Your task to perform on an android device: turn on sleep mode Image 0: 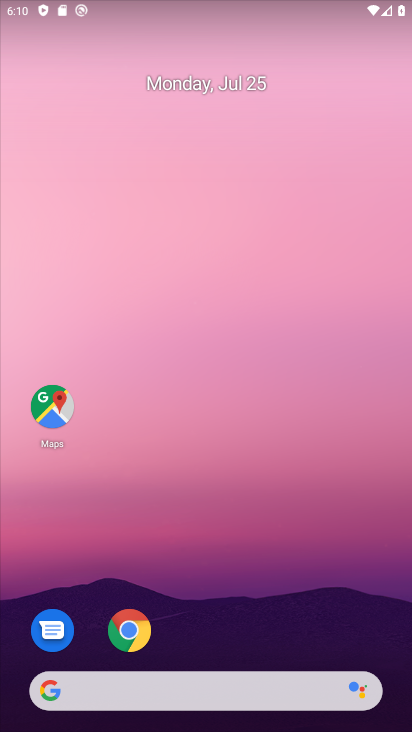
Step 0: drag from (184, 699) to (270, 79)
Your task to perform on an android device: turn on sleep mode Image 1: 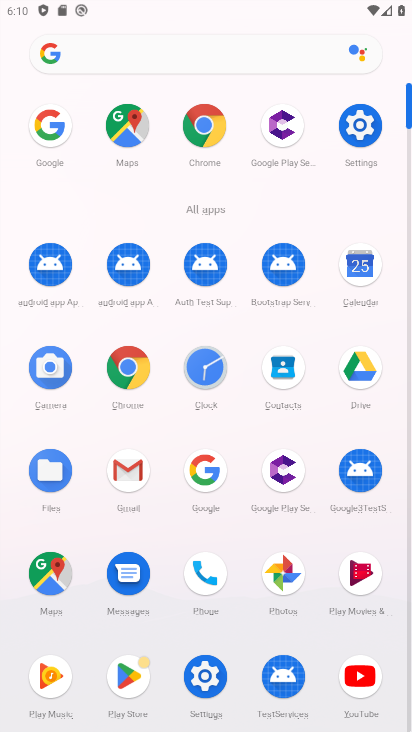
Step 1: click (359, 125)
Your task to perform on an android device: turn on sleep mode Image 2: 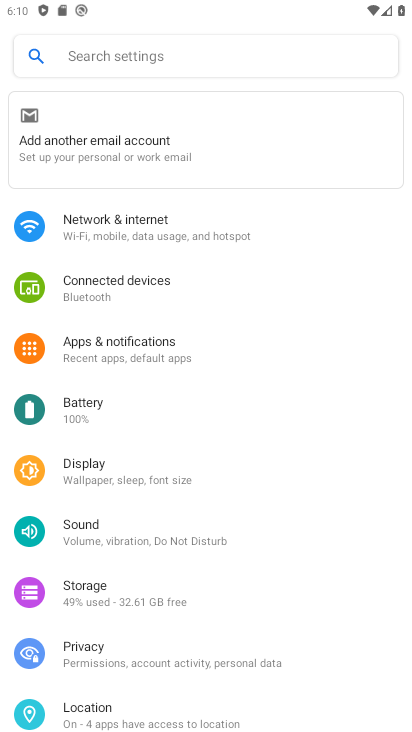
Step 2: click (118, 361)
Your task to perform on an android device: turn on sleep mode Image 3: 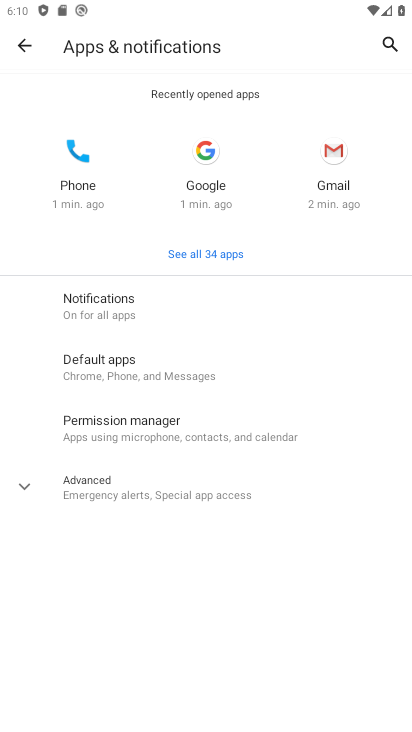
Step 3: press back button
Your task to perform on an android device: turn on sleep mode Image 4: 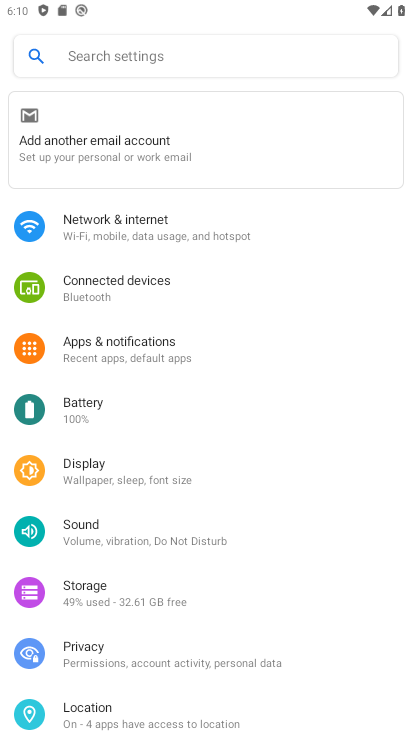
Step 4: click (143, 477)
Your task to perform on an android device: turn on sleep mode Image 5: 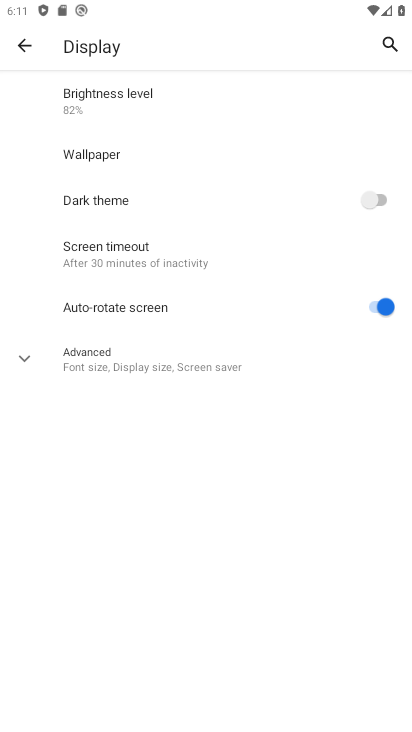
Step 5: click (140, 274)
Your task to perform on an android device: turn on sleep mode Image 6: 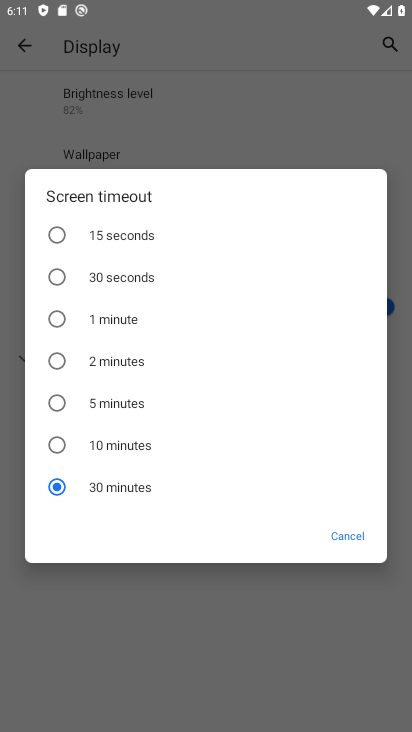
Step 6: click (344, 540)
Your task to perform on an android device: turn on sleep mode Image 7: 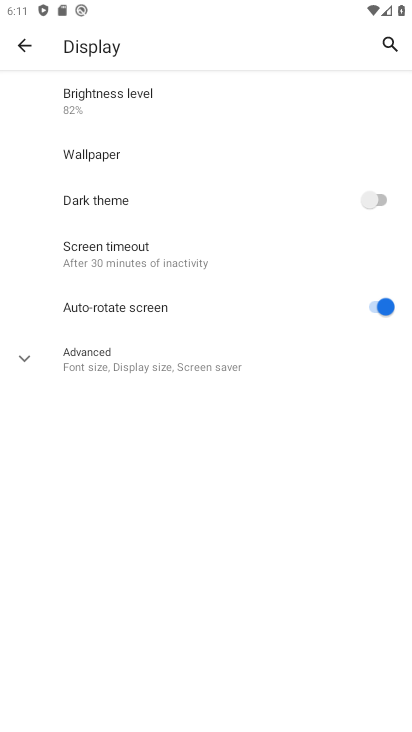
Step 7: click (157, 269)
Your task to perform on an android device: turn on sleep mode Image 8: 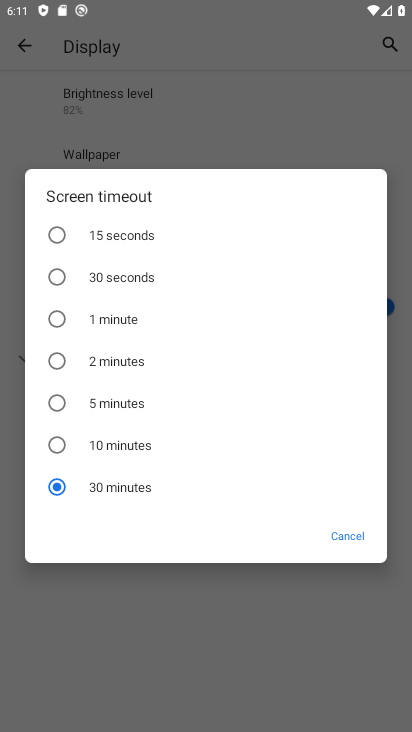
Step 8: click (242, 598)
Your task to perform on an android device: turn on sleep mode Image 9: 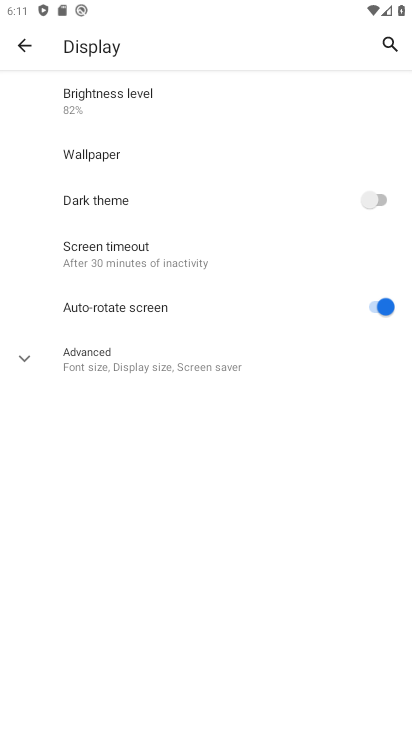
Step 9: task complete